Your task to perform on an android device: turn off translation in the chrome app Image 0: 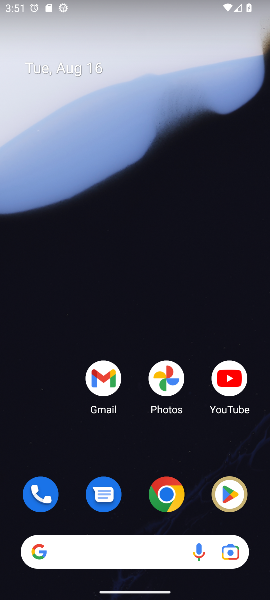
Step 0: drag from (149, 517) to (177, 21)
Your task to perform on an android device: turn off translation in the chrome app Image 1: 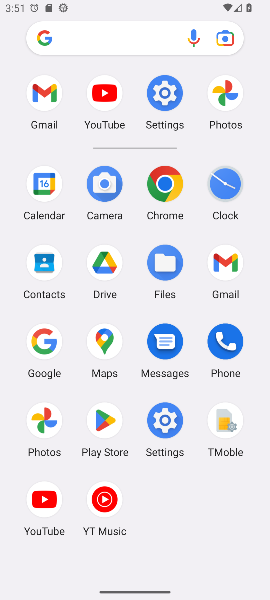
Step 1: click (166, 196)
Your task to perform on an android device: turn off translation in the chrome app Image 2: 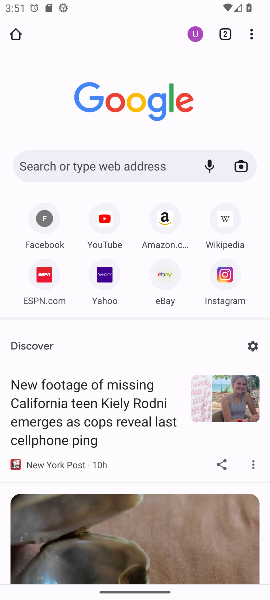
Step 2: click (251, 33)
Your task to perform on an android device: turn off translation in the chrome app Image 3: 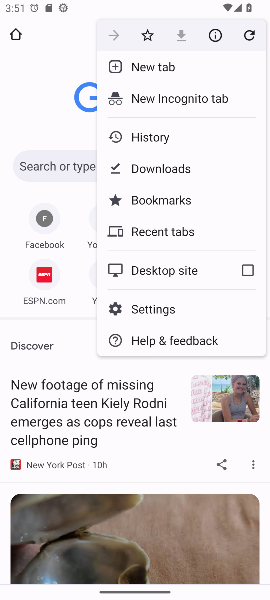
Step 3: click (139, 327)
Your task to perform on an android device: turn off translation in the chrome app Image 4: 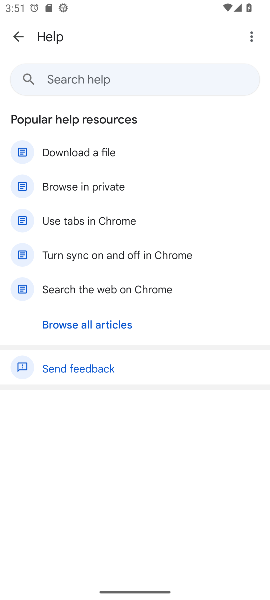
Step 4: click (16, 41)
Your task to perform on an android device: turn off translation in the chrome app Image 5: 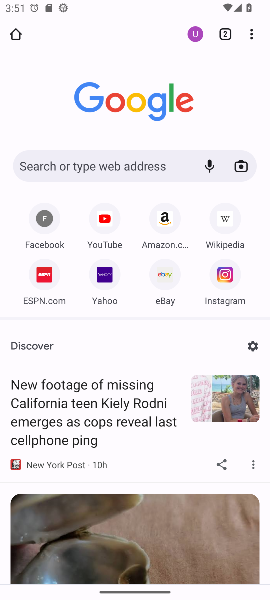
Step 5: click (249, 32)
Your task to perform on an android device: turn off translation in the chrome app Image 6: 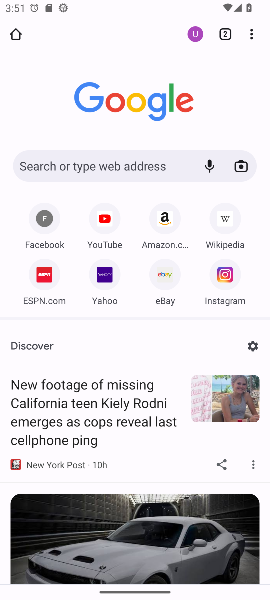
Step 6: drag from (249, 35) to (132, 314)
Your task to perform on an android device: turn off translation in the chrome app Image 7: 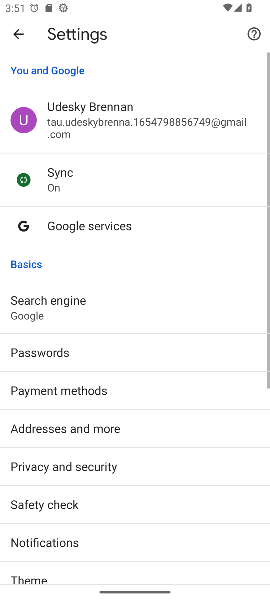
Step 7: drag from (74, 500) to (51, 56)
Your task to perform on an android device: turn off translation in the chrome app Image 8: 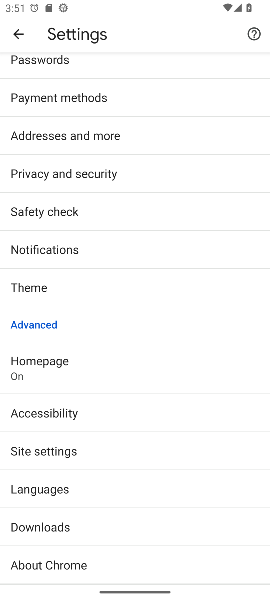
Step 8: drag from (67, 109) to (71, 0)
Your task to perform on an android device: turn off translation in the chrome app Image 9: 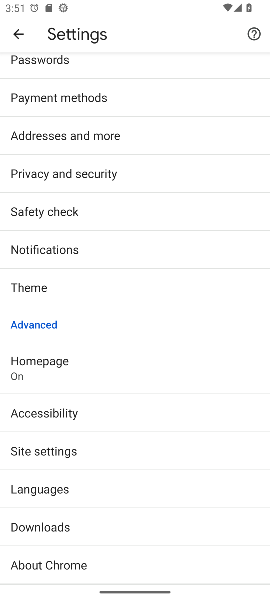
Step 9: click (59, 483)
Your task to perform on an android device: turn off translation in the chrome app Image 10: 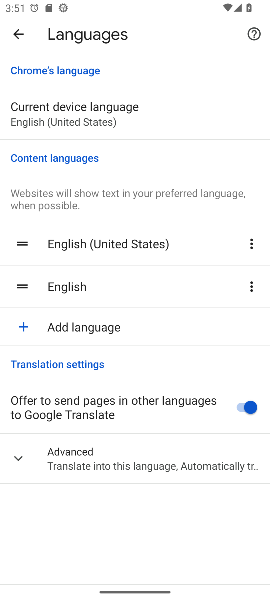
Step 10: click (242, 411)
Your task to perform on an android device: turn off translation in the chrome app Image 11: 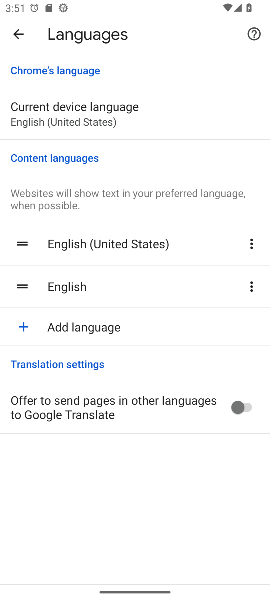
Step 11: task complete